Your task to perform on an android device: read, delete, or share a saved page in the chrome app Image 0: 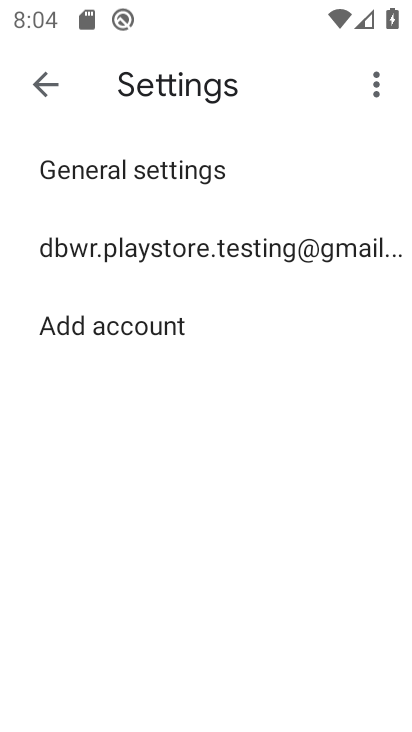
Step 0: press home button
Your task to perform on an android device: read, delete, or share a saved page in the chrome app Image 1: 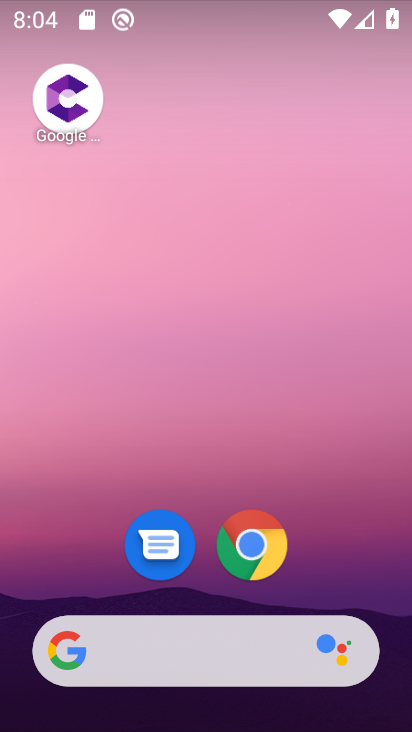
Step 1: click (262, 546)
Your task to perform on an android device: read, delete, or share a saved page in the chrome app Image 2: 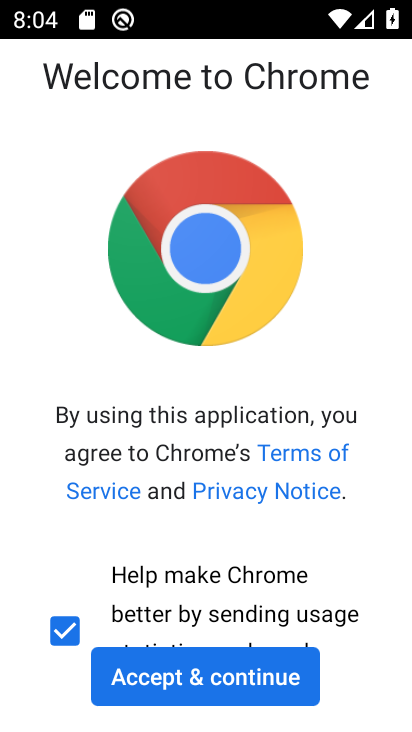
Step 2: click (231, 675)
Your task to perform on an android device: read, delete, or share a saved page in the chrome app Image 3: 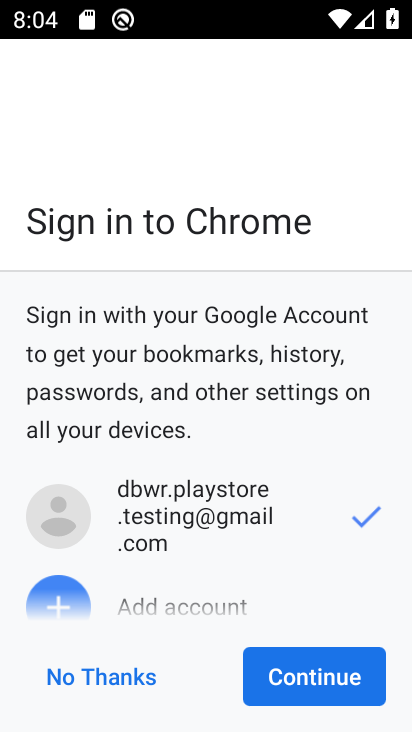
Step 3: click (338, 657)
Your task to perform on an android device: read, delete, or share a saved page in the chrome app Image 4: 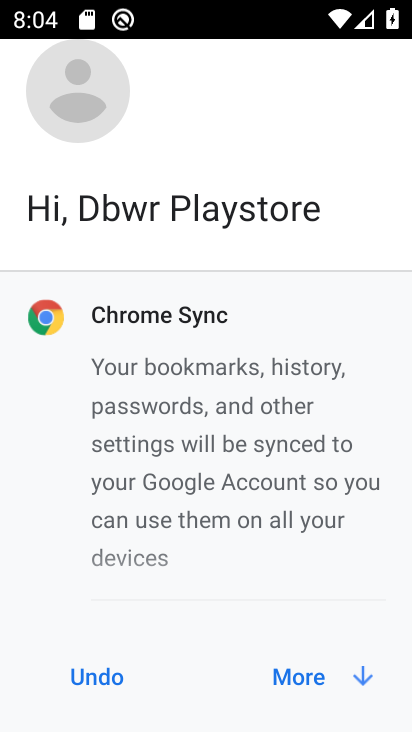
Step 4: click (337, 678)
Your task to perform on an android device: read, delete, or share a saved page in the chrome app Image 5: 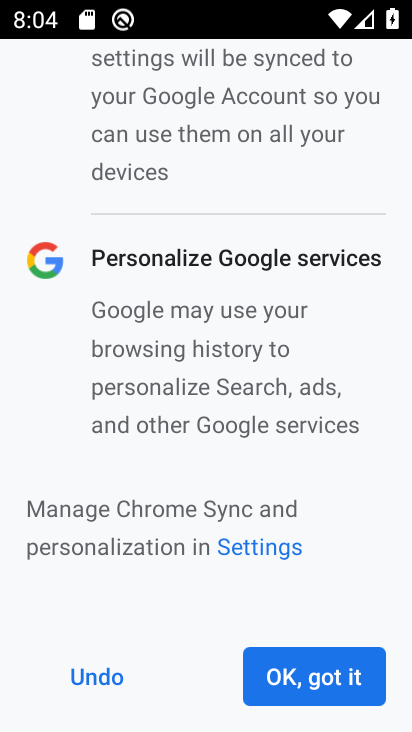
Step 5: click (338, 672)
Your task to perform on an android device: read, delete, or share a saved page in the chrome app Image 6: 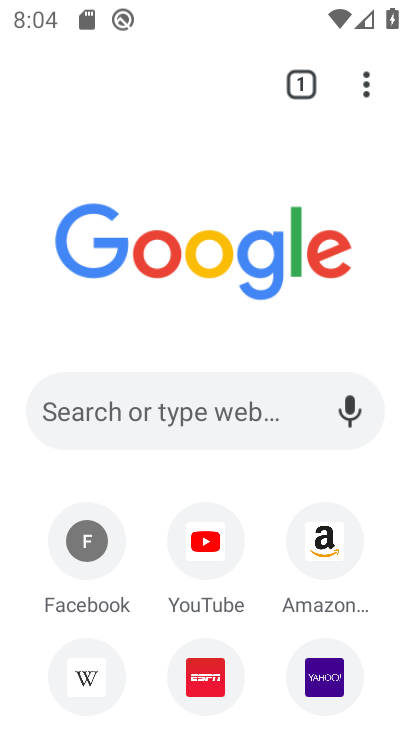
Step 6: drag from (359, 85) to (197, 541)
Your task to perform on an android device: read, delete, or share a saved page in the chrome app Image 7: 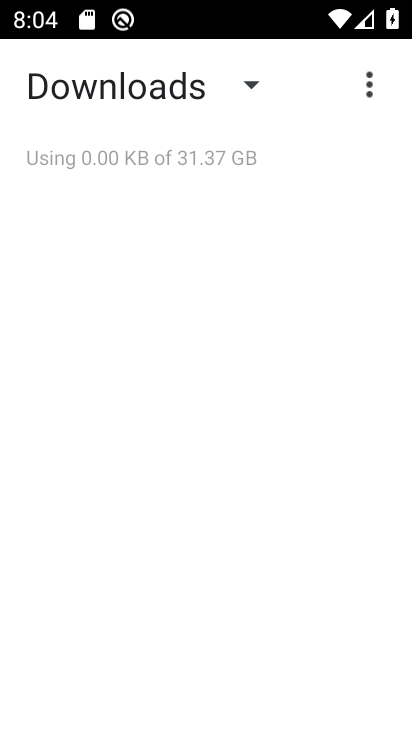
Step 7: click (182, 100)
Your task to perform on an android device: read, delete, or share a saved page in the chrome app Image 8: 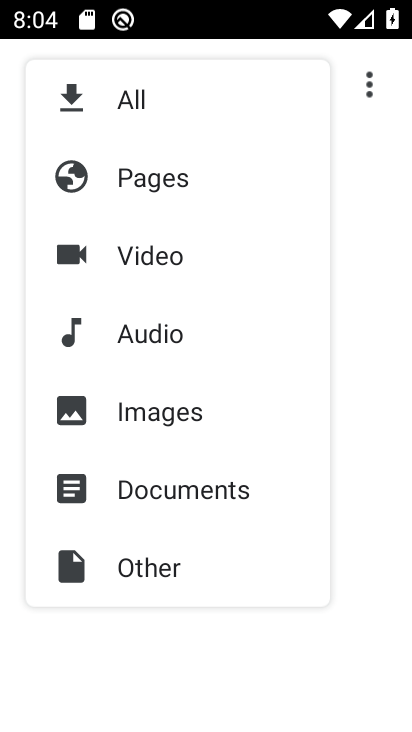
Step 8: click (165, 176)
Your task to perform on an android device: read, delete, or share a saved page in the chrome app Image 9: 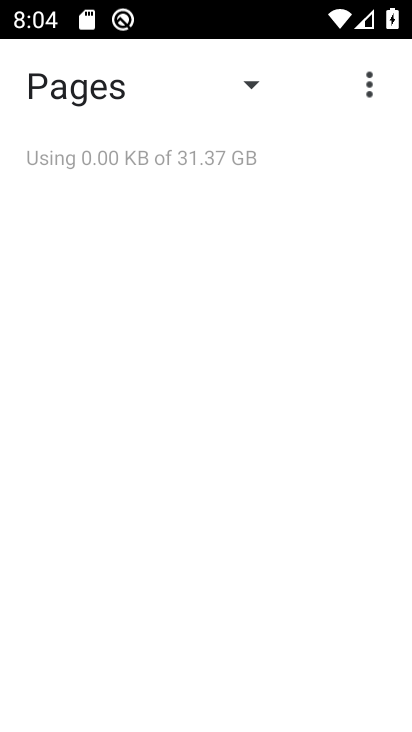
Step 9: task complete